Your task to perform on an android device: Go to wifi settings Image 0: 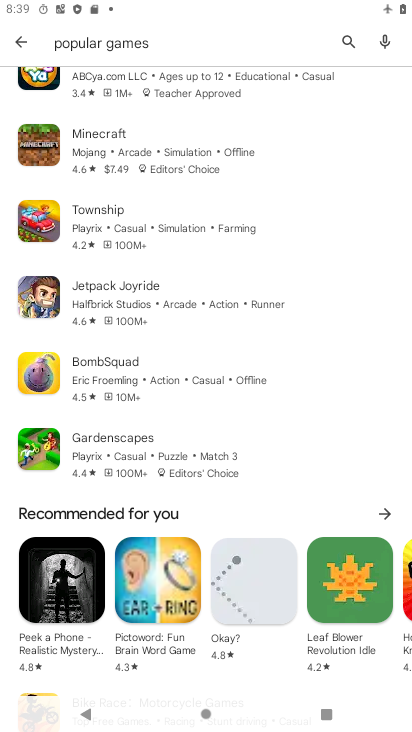
Step 0: press home button
Your task to perform on an android device: Go to wifi settings Image 1: 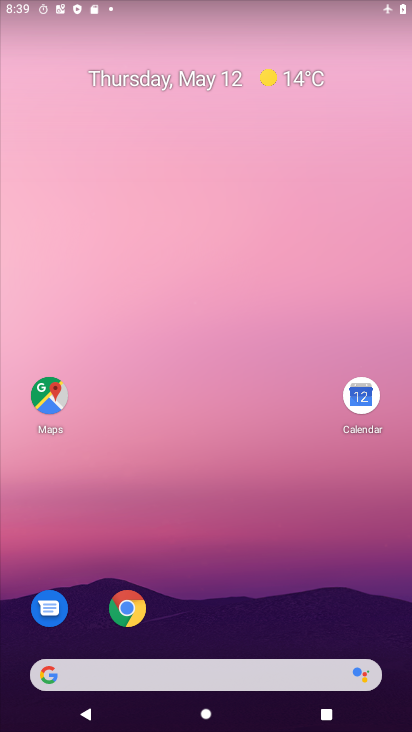
Step 1: drag from (205, 527) to (277, 80)
Your task to perform on an android device: Go to wifi settings Image 2: 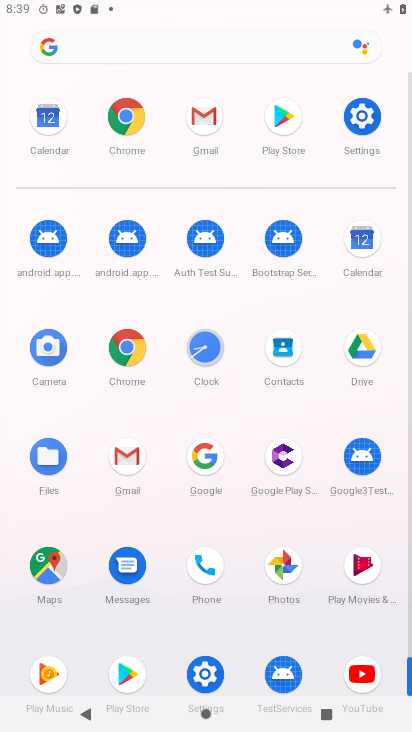
Step 2: click (365, 107)
Your task to perform on an android device: Go to wifi settings Image 3: 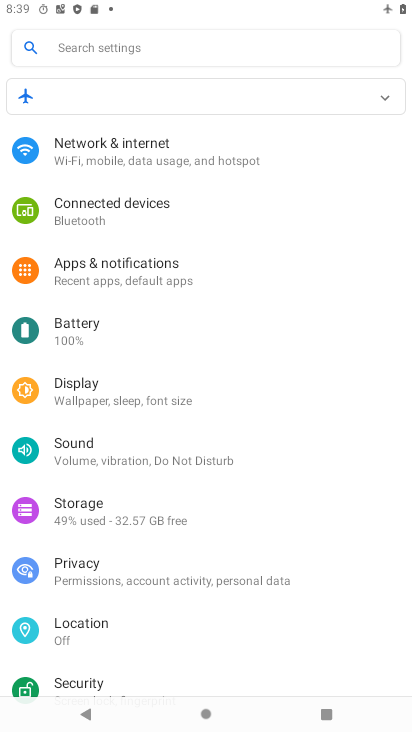
Step 3: click (258, 158)
Your task to perform on an android device: Go to wifi settings Image 4: 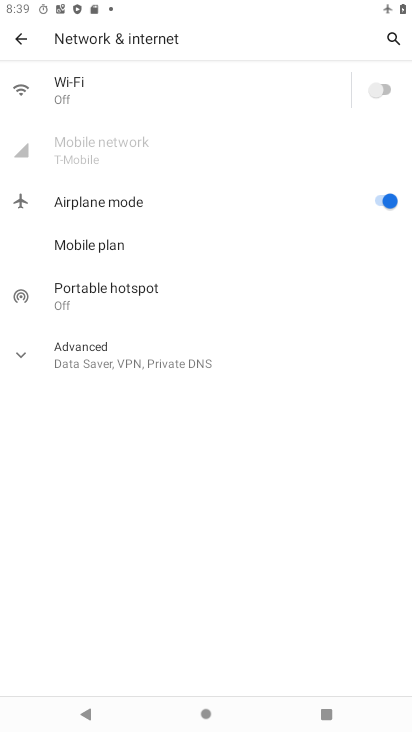
Step 4: click (188, 74)
Your task to perform on an android device: Go to wifi settings Image 5: 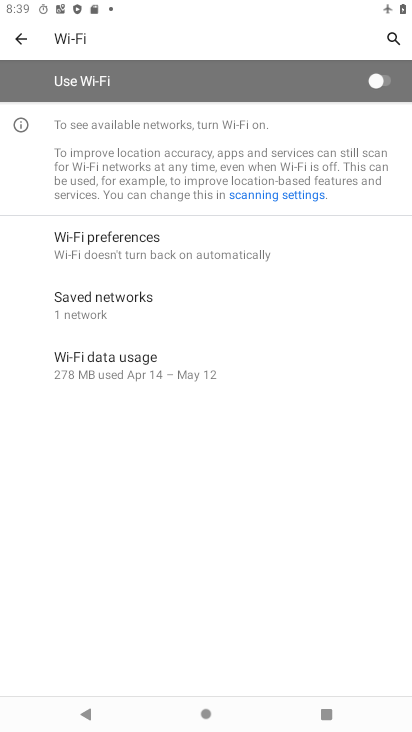
Step 5: task complete